Your task to perform on an android device: Check the news Image 0: 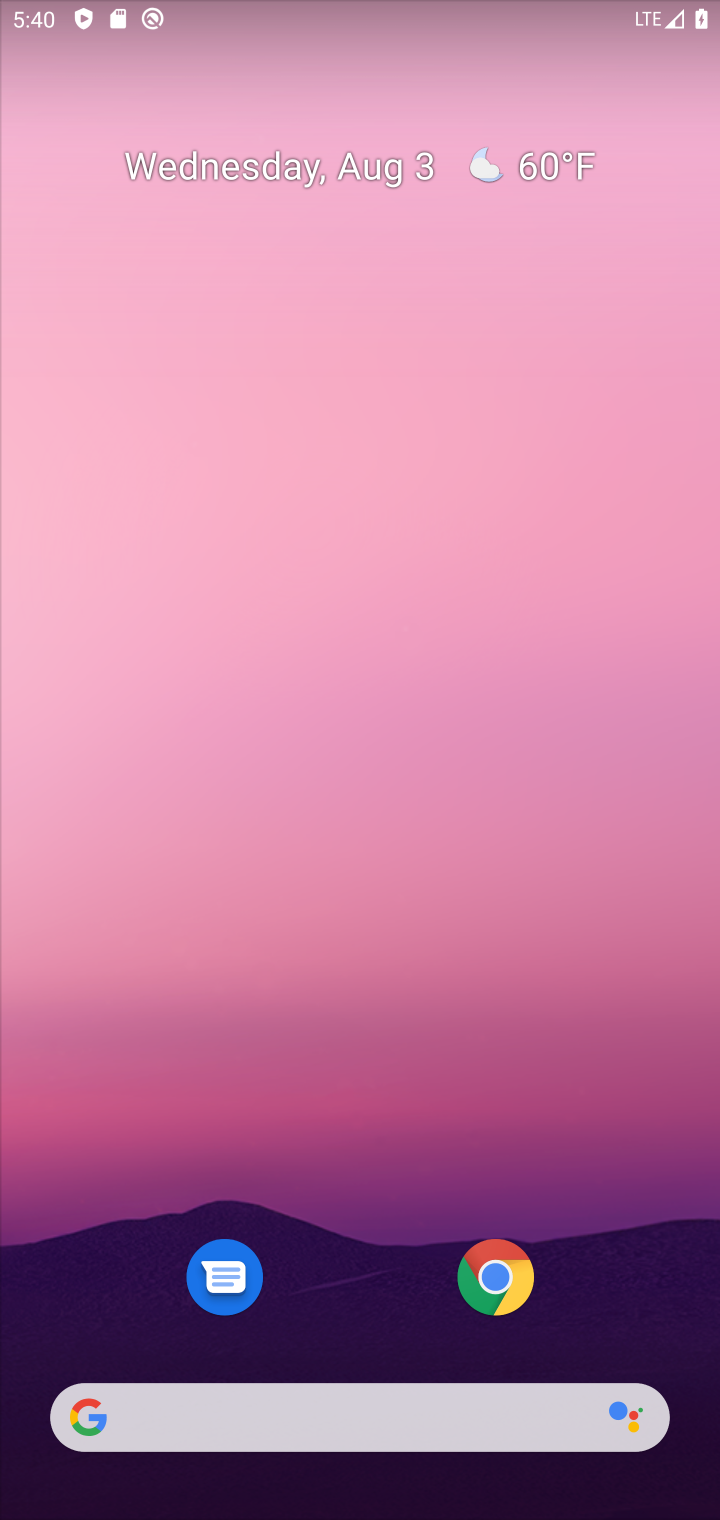
Step 0: click (255, 1416)
Your task to perform on an android device: Check the news Image 1: 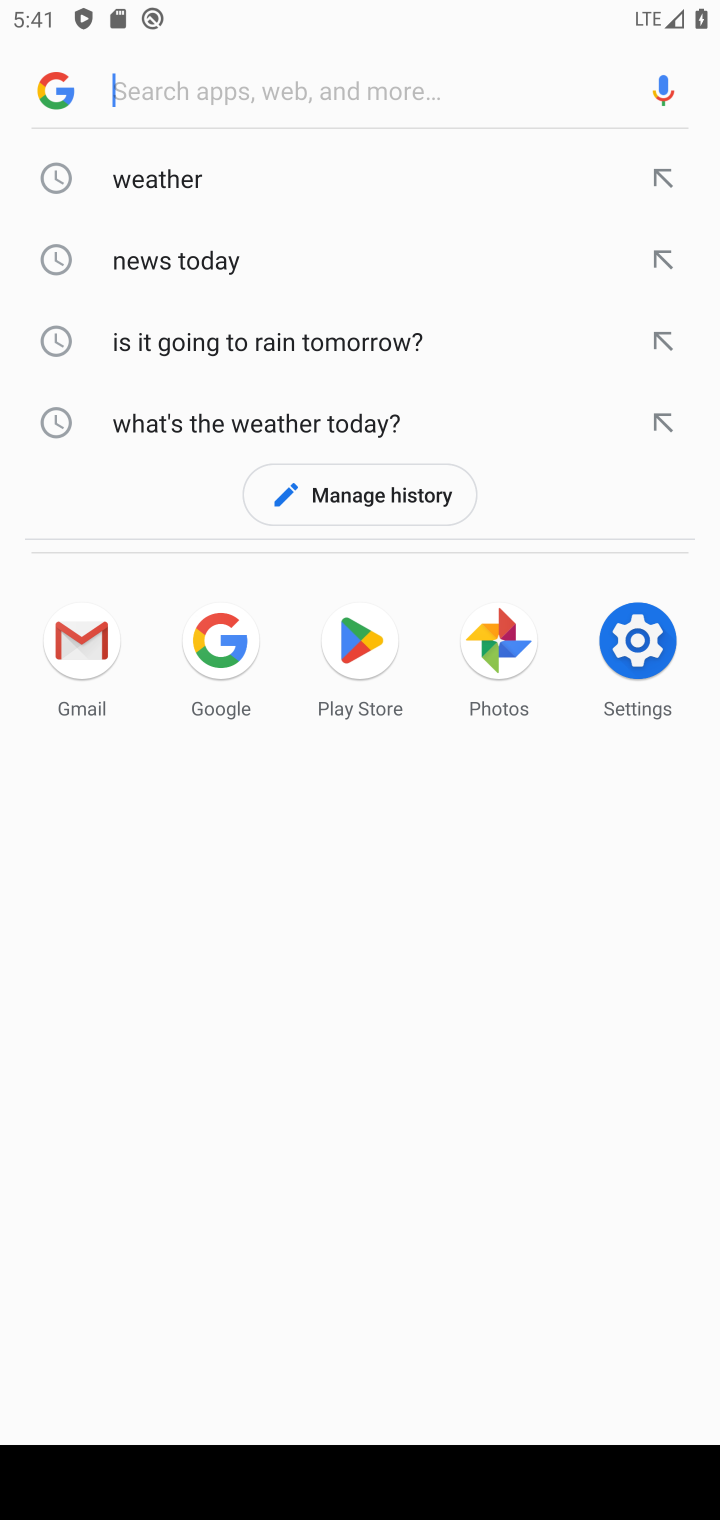
Step 1: click (243, 86)
Your task to perform on an android device: Check the news Image 2: 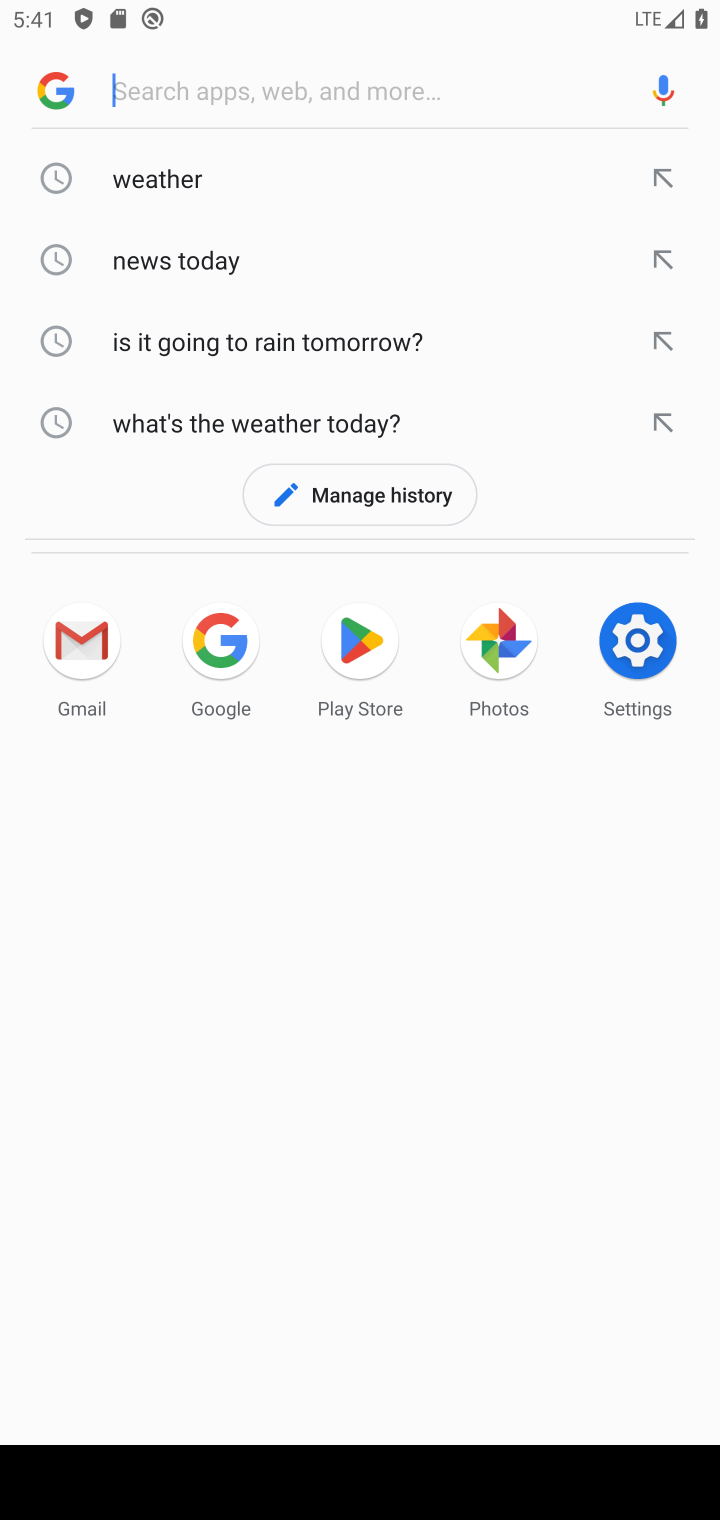
Step 2: type "news"
Your task to perform on an android device: Check the news Image 3: 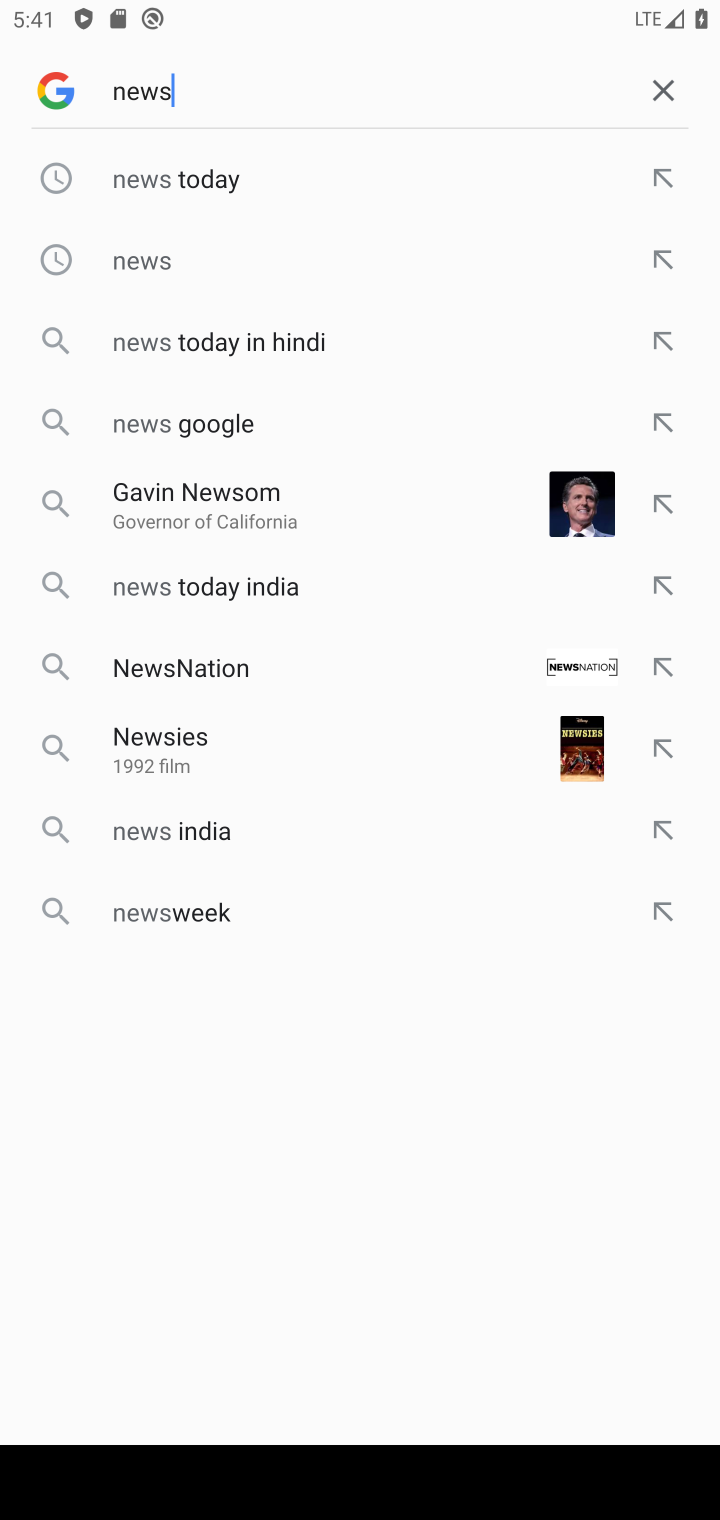
Step 3: click (251, 194)
Your task to perform on an android device: Check the news Image 4: 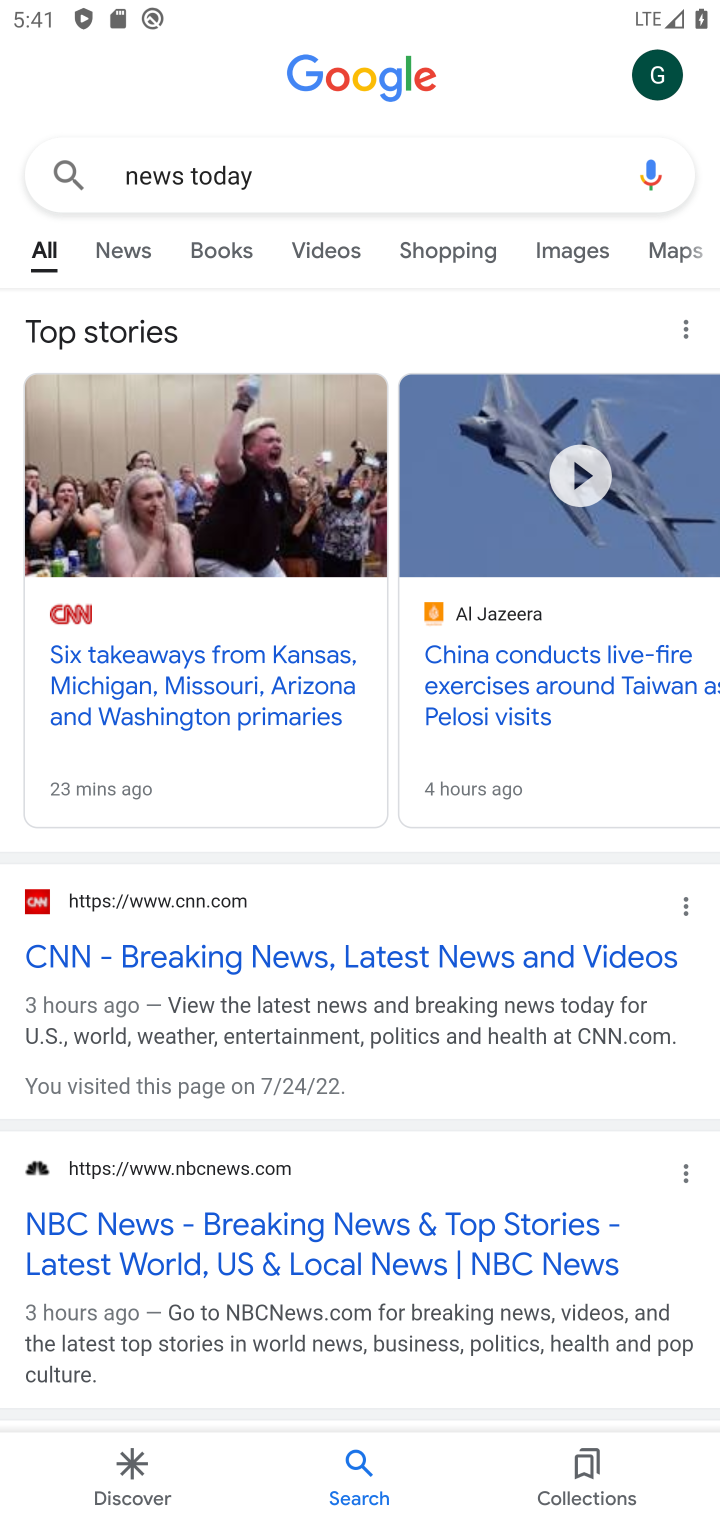
Step 4: task complete